Your task to perform on an android device: Open Google Chrome Image 0: 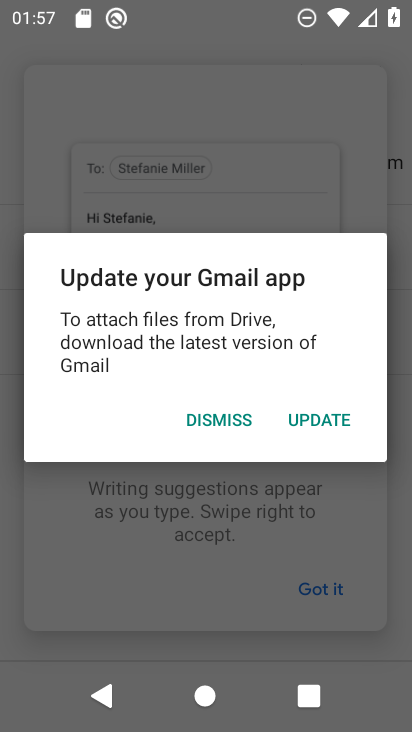
Step 0: press home button
Your task to perform on an android device: Open Google Chrome Image 1: 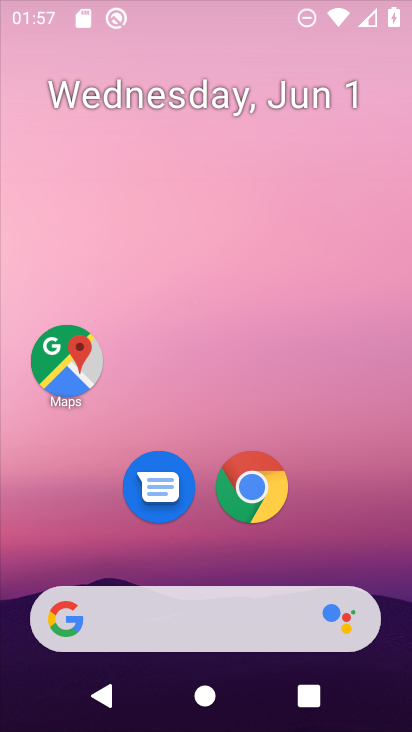
Step 1: drag from (236, 588) to (256, 246)
Your task to perform on an android device: Open Google Chrome Image 2: 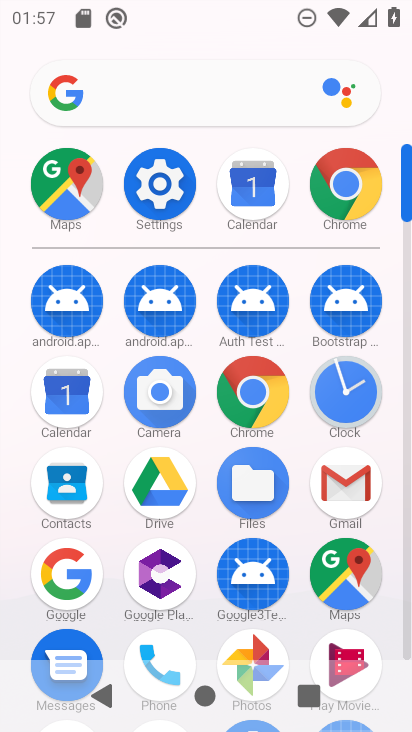
Step 2: drag from (257, 587) to (286, 337)
Your task to perform on an android device: Open Google Chrome Image 3: 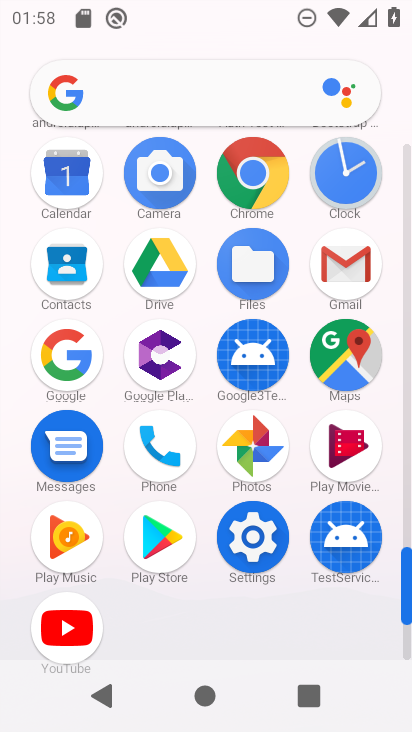
Step 3: click (331, 350)
Your task to perform on an android device: Open Google Chrome Image 4: 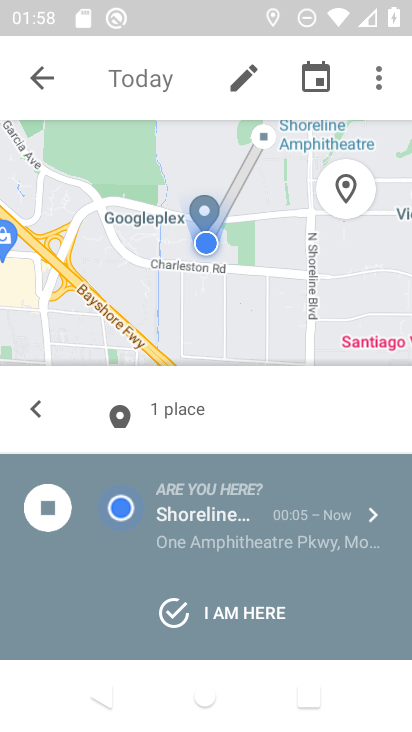
Step 4: click (40, 78)
Your task to perform on an android device: Open Google Chrome Image 5: 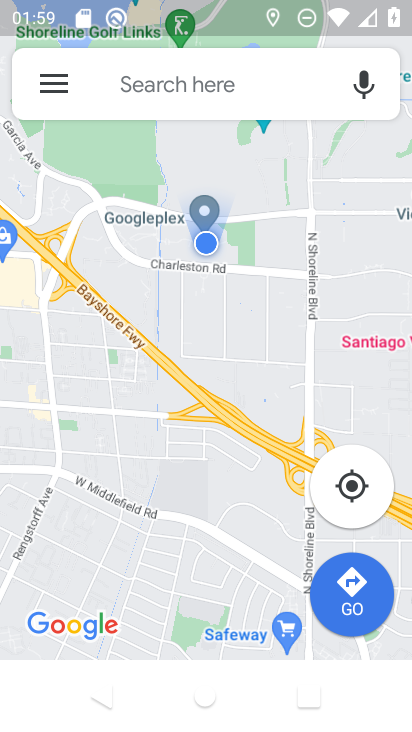
Step 5: task complete